Your task to perform on an android device: Go to Wikipedia Image 0: 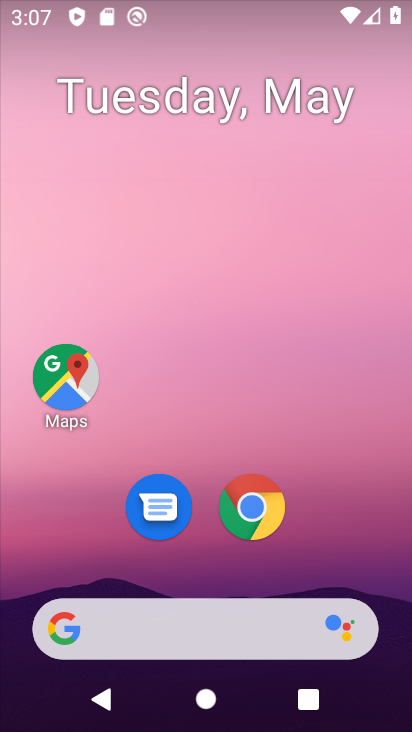
Step 0: drag from (199, 586) to (252, 100)
Your task to perform on an android device: Go to Wikipedia Image 1: 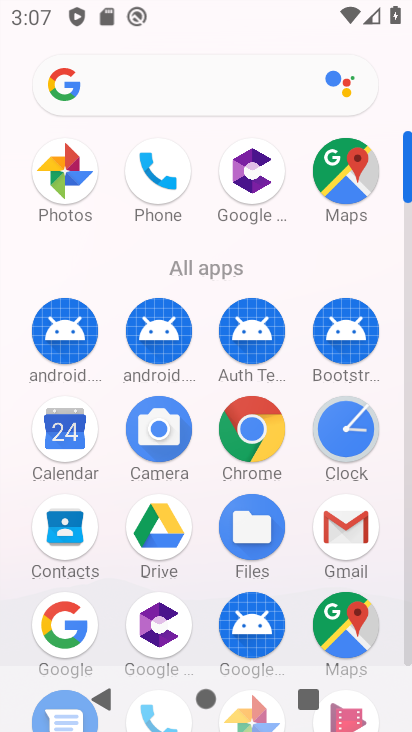
Step 1: drag from (298, 569) to (319, 279)
Your task to perform on an android device: Go to Wikipedia Image 2: 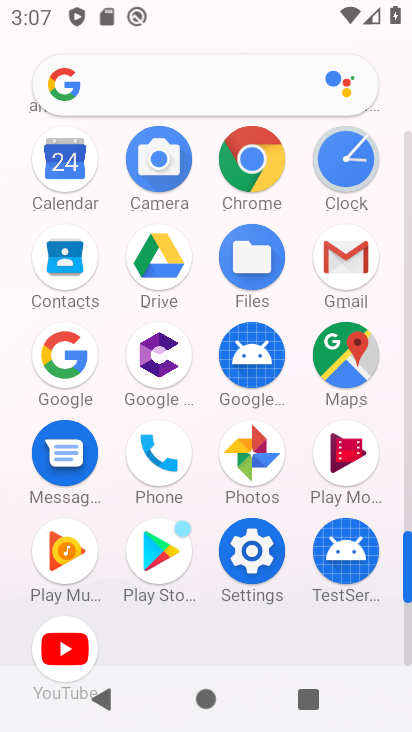
Step 2: click (247, 165)
Your task to perform on an android device: Go to Wikipedia Image 3: 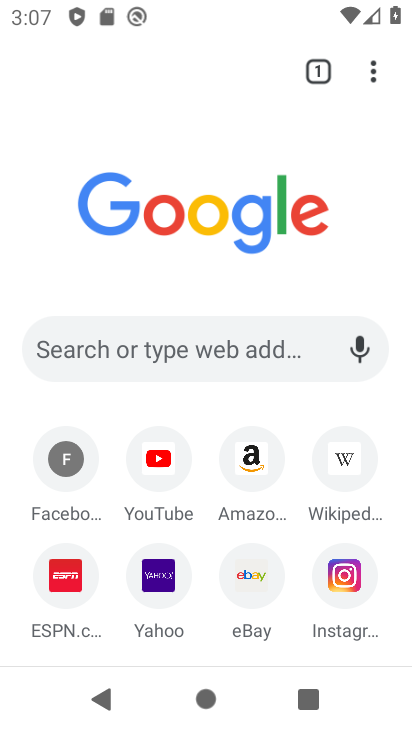
Step 3: click (333, 456)
Your task to perform on an android device: Go to Wikipedia Image 4: 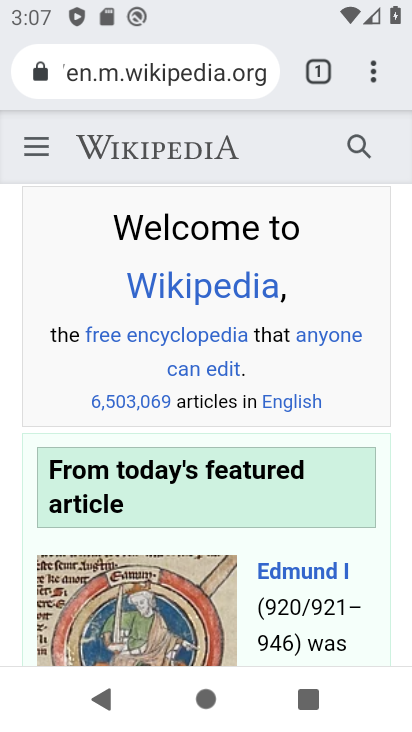
Step 4: task complete